Your task to perform on an android device: Open Wikipedia Image 0: 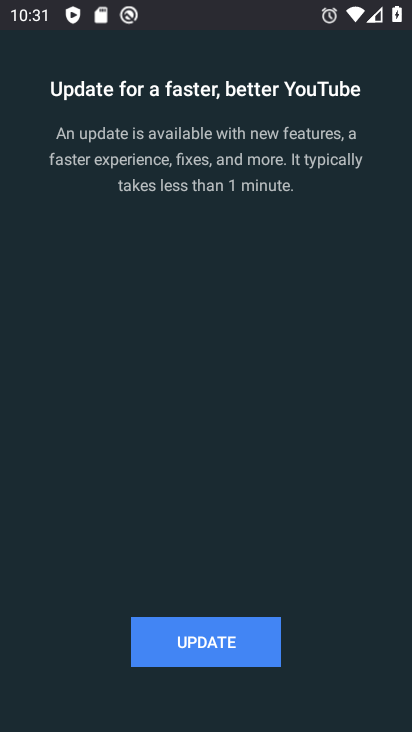
Step 0: press home button
Your task to perform on an android device: Open Wikipedia Image 1: 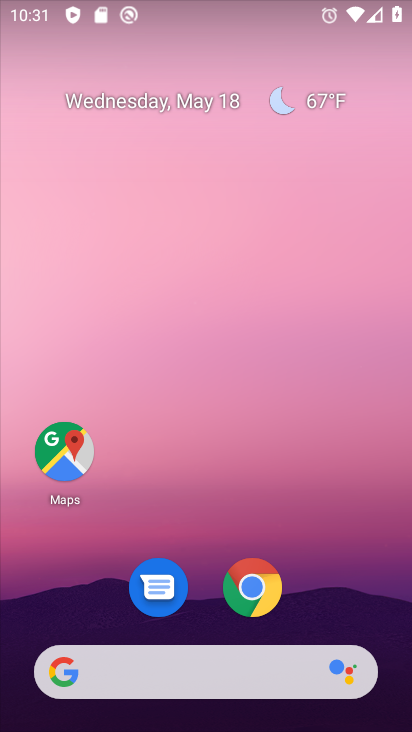
Step 1: click (263, 591)
Your task to perform on an android device: Open Wikipedia Image 2: 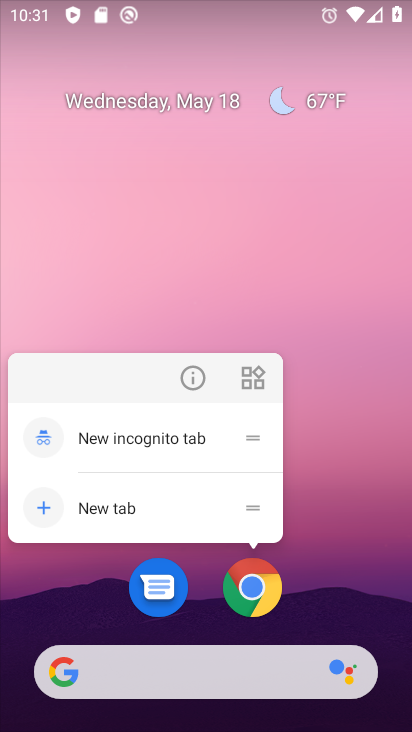
Step 2: click (251, 587)
Your task to perform on an android device: Open Wikipedia Image 3: 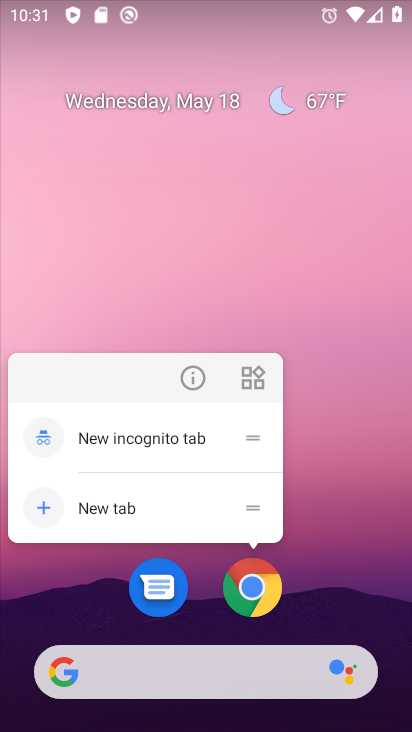
Step 3: click (253, 578)
Your task to perform on an android device: Open Wikipedia Image 4: 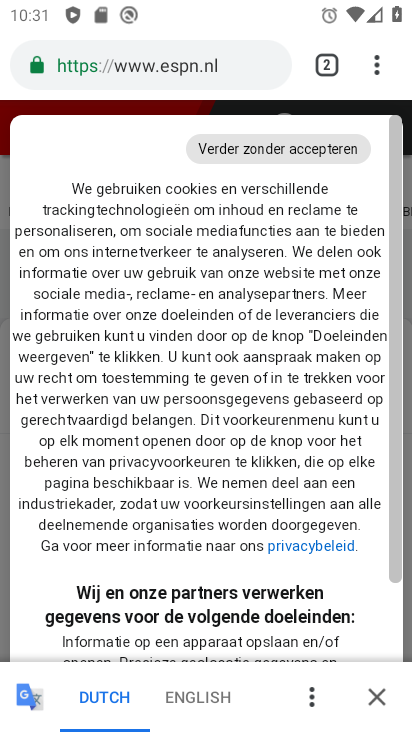
Step 4: click (329, 73)
Your task to perform on an android device: Open Wikipedia Image 5: 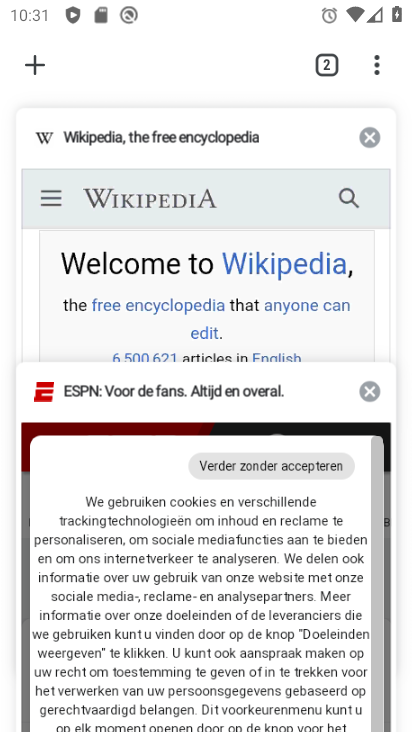
Step 5: click (150, 152)
Your task to perform on an android device: Open Wikipedia Image 6: 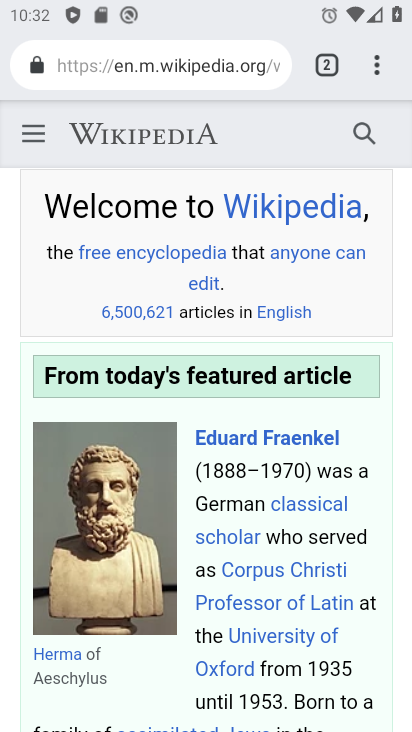
Step 6: task complete